Your task to perform on an android device: set the stopwatch Image 0: 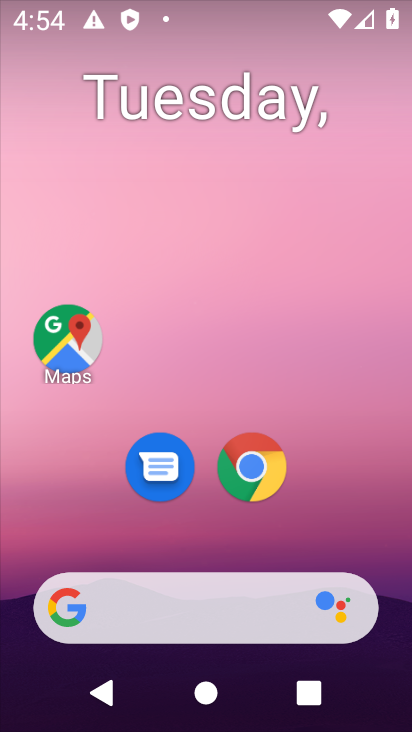
Step 0: drag from (261, 526) to (219, 44)
Your task to perform on an android device: set the stopwatch Image 1: 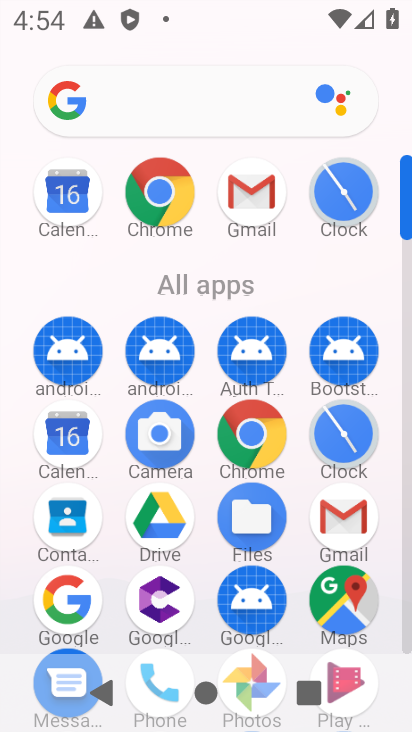
Step 1: click (353, 443)
Your task to perform on an android device: set the stopwatch Image 2: 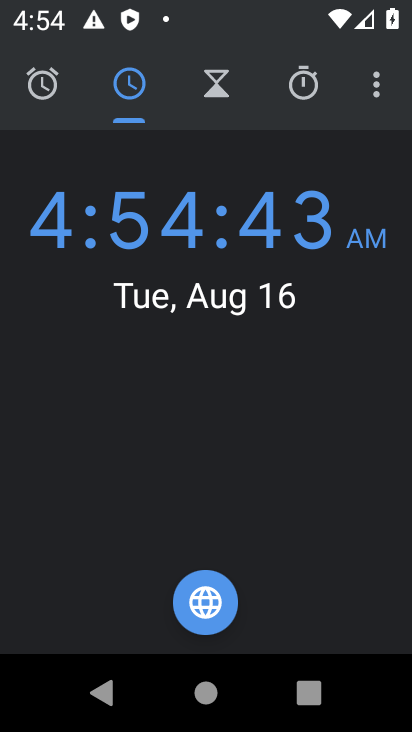
Step 2: click (347, 434)
Your task to perform on an android device: set the stopwatch Image 3: 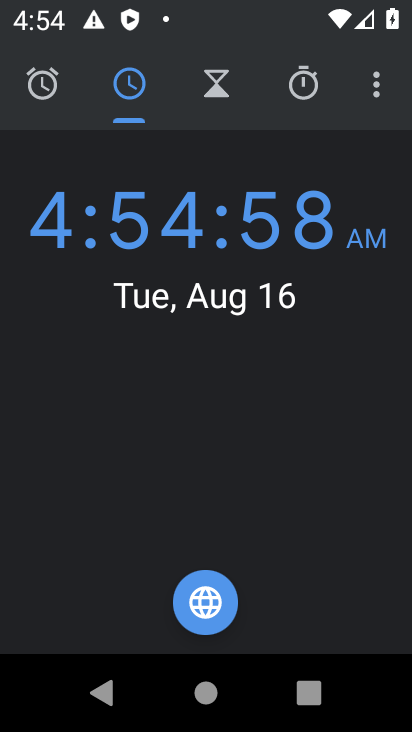
Step 3: click (295, 83)
Your task to perform on an android device: set the stopwatch Image 4: 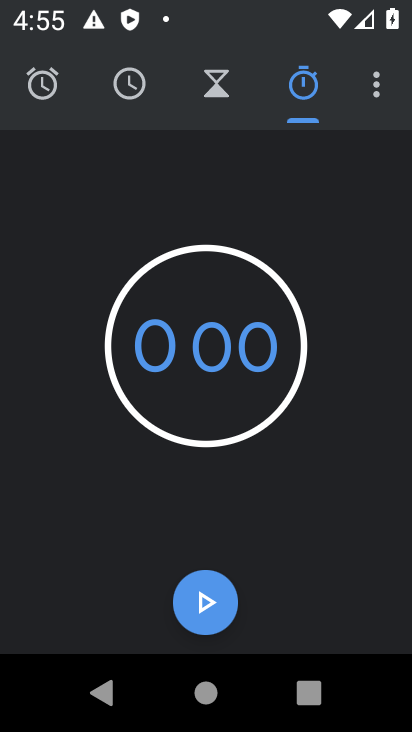
Step 4: click (199, 591)
Your task to perform on an android device: set the stopwatch Image 5: 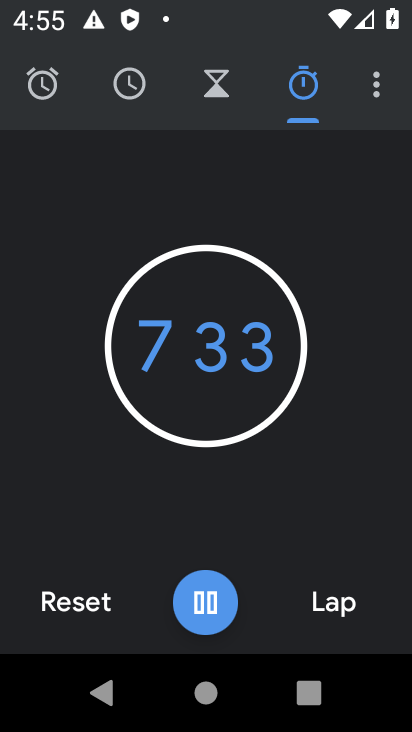
Step 5: task complete